Your task to perform on an android device: Go to sound settings Image 0: 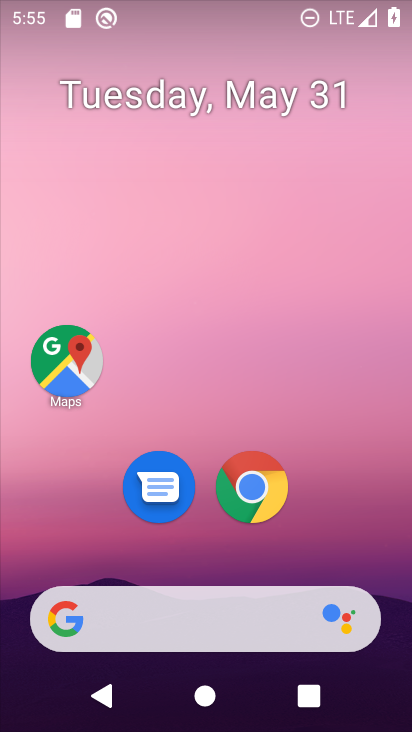
Step 0: drag from (324, 524) to (229, 18)
Your task to perform on an android device: Go to sound settings Image 1: 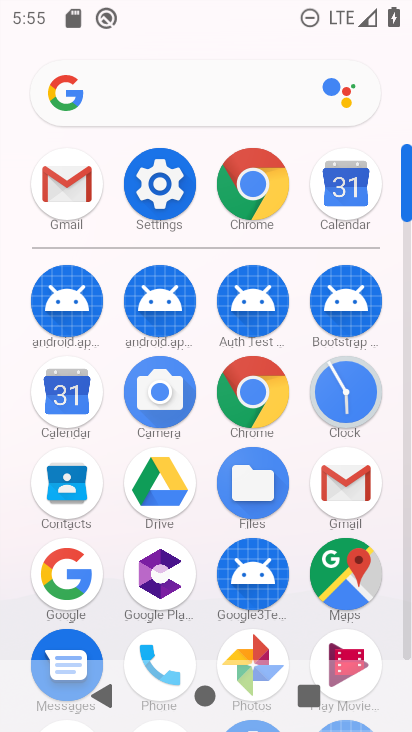
Step 1: click (157, 183)
Your task to perform on an android device: Go to sound settings Image 2: 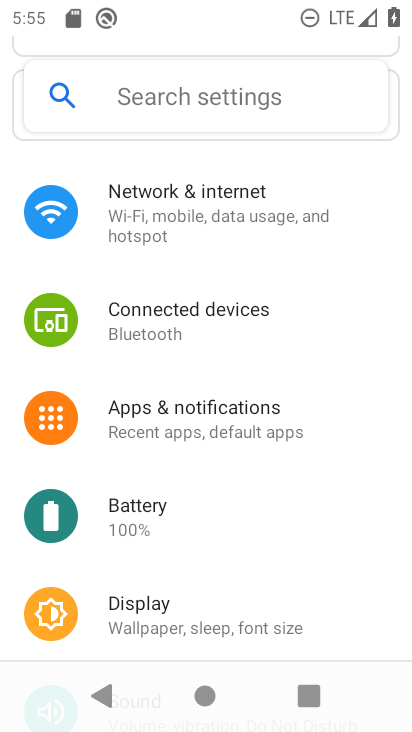
Step 2: drag from (214, 553) to (185, 217)
Your task to perform on an android device: Go to sound settings Image 3: 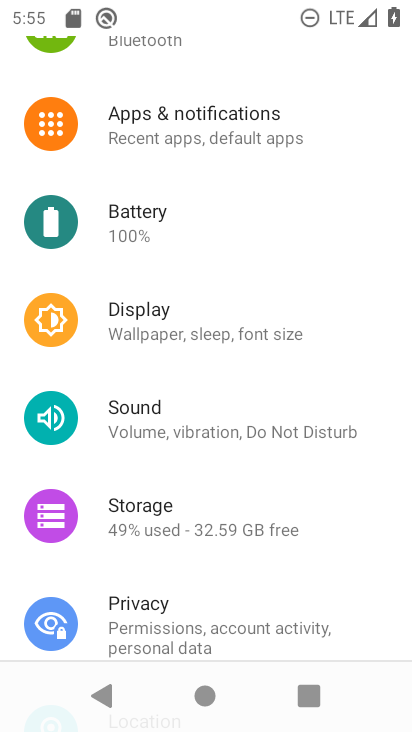
Step 3: click (126, 411)
Your task to perform on an android device: Go to sound settings Image 4: 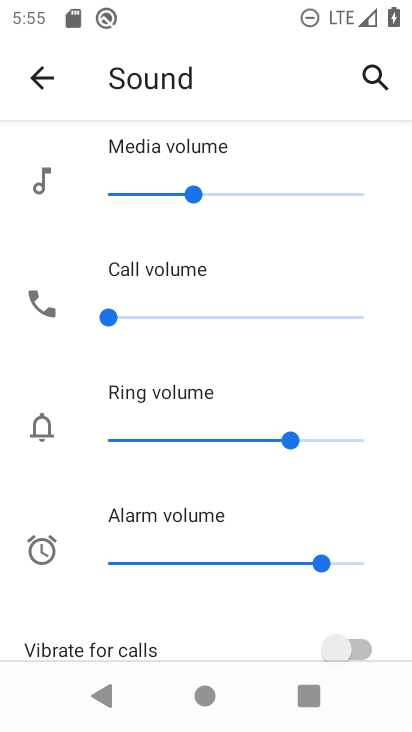
Step 4: task complete